Your task to perform on an android device: Go to Yahoo.com Image 0: 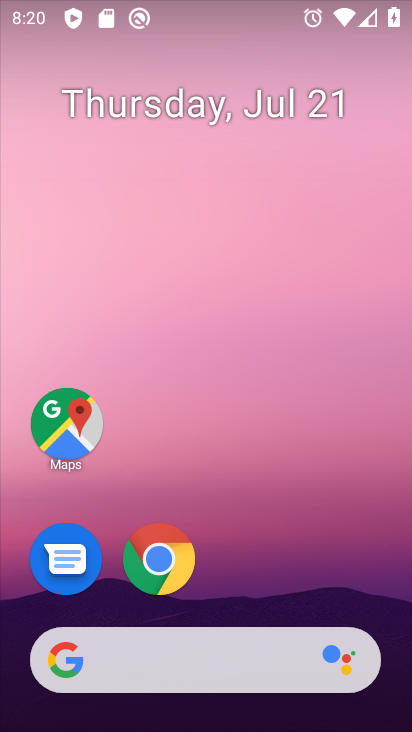
Step 0: drag from (325, 548) to (396, 125)
Your task to perform on an android device: Go to Yahoo.com Image 1: 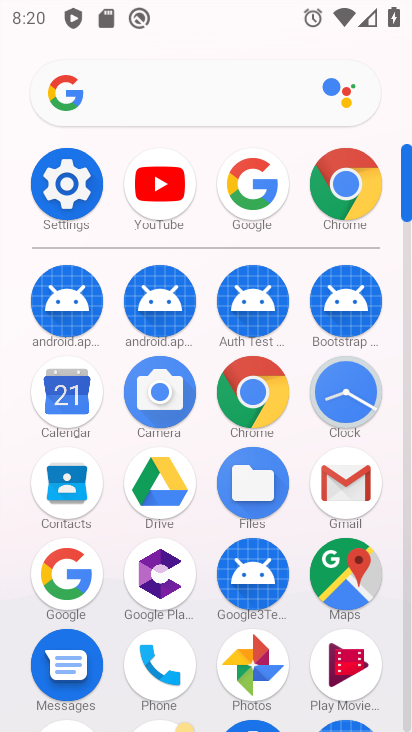
Step 1: click (347, 183)
Your task to perform on an android device: Go to Yahoo.com Image 2: 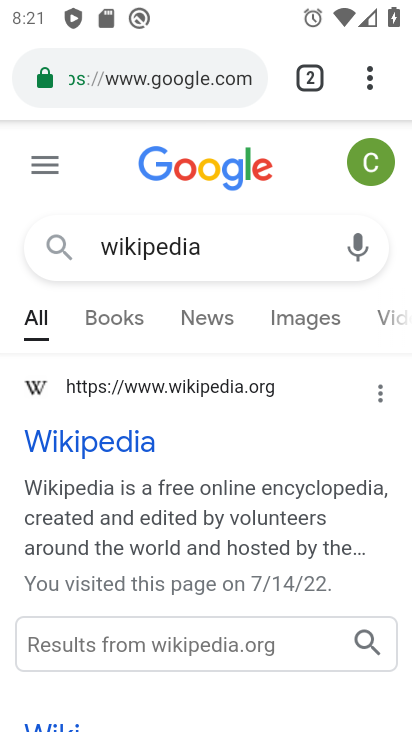
Step 2: click (228, 81)
Your task to perform on an android device: Go to Yahoo.com Image 3: 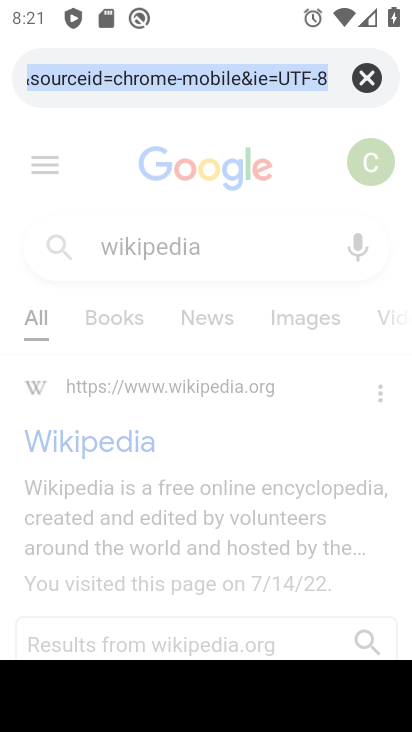
Step 3: type "yahoo.com"
Your task to perform on an android device: Go to Yahoo.com Image 4: 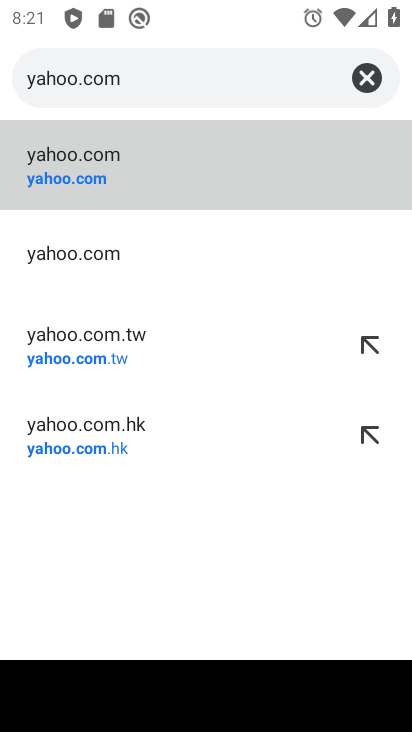
Step 4: click (268, 190)
Your task to perform on an android device: Go to Yahoo.com Image 5: 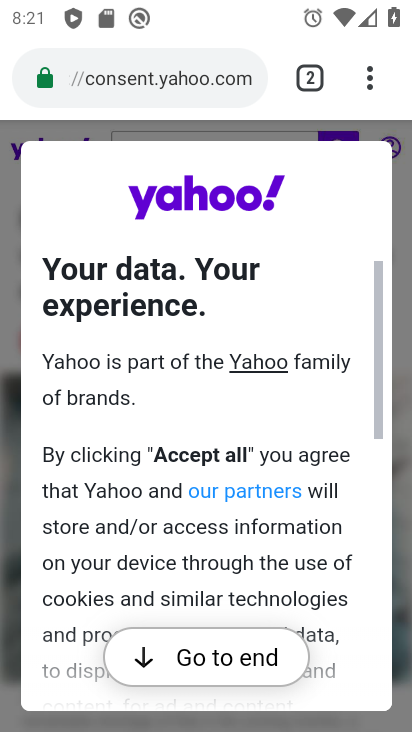
Step 5: task complete